Your task to perform on an android device: Open eBay Image 0: 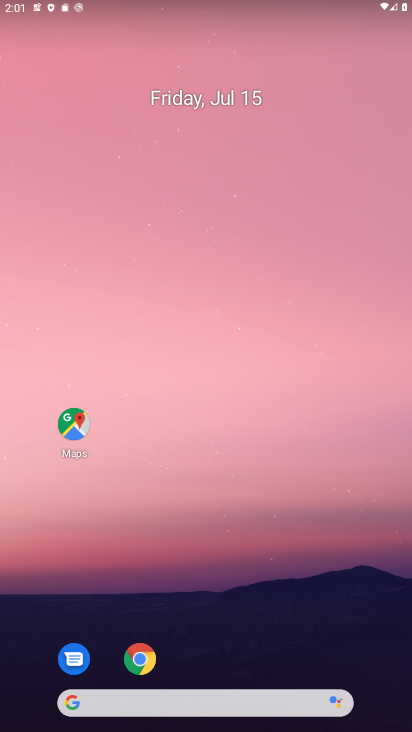
Step 0: drag from (216, 683) to (284, 184)
Your task to perform on an android device: Open eBay Image 1: 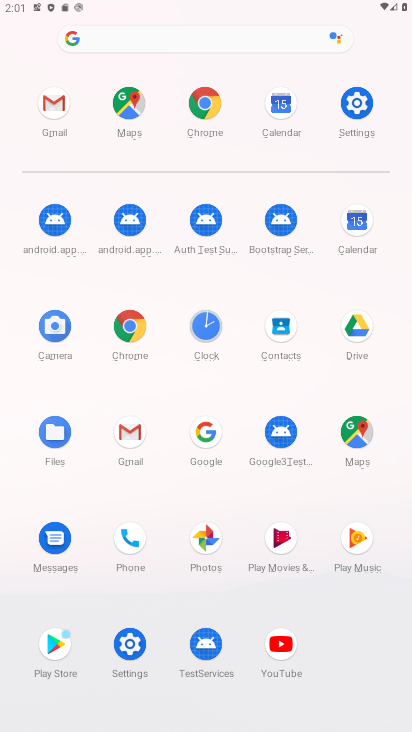
Step 1: click (202, 99)
Your task to perform on an android device: Open eBay Image 2: 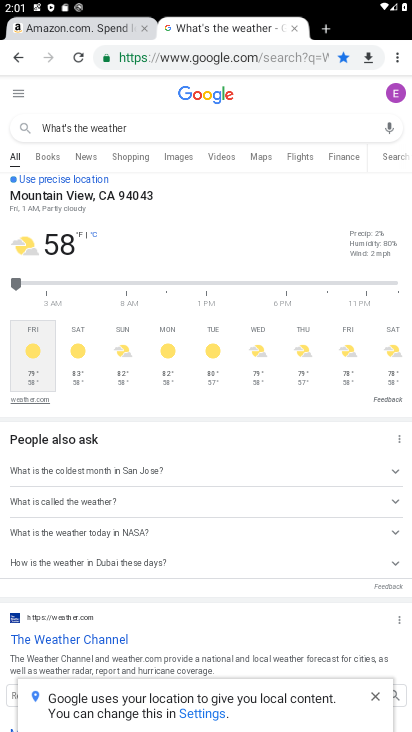
Step 2: click (320, 34)
Your task to perform on an android device: Open eBay Image 3: 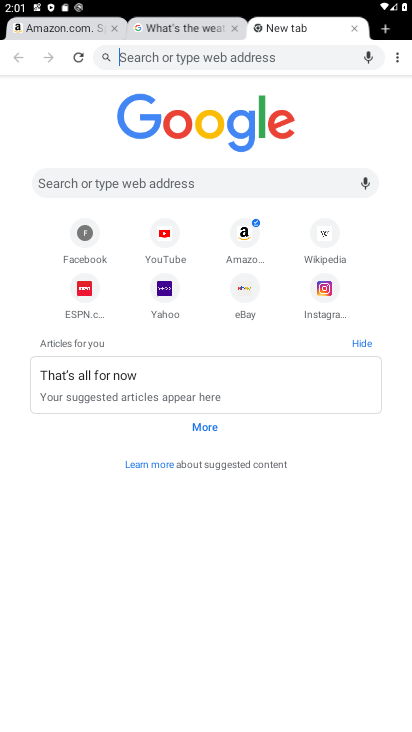
Step 3: click (243, 293)
Your task to perform on an android device: Open eBay Image 4: 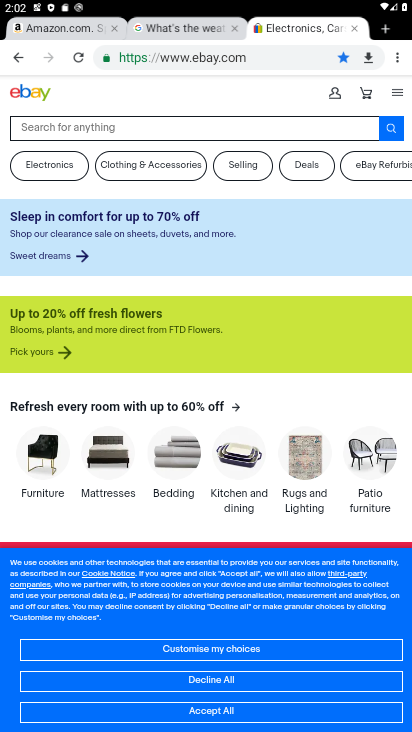
Step 4: task complete